Your task to perform on an android device: Go to settings Image 0: 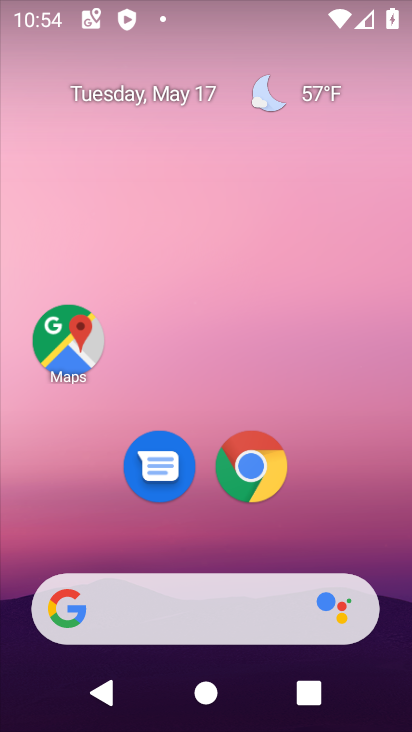
Step 0: drag from (203, 562) to (194, 27)
Your task to perform on an android device: Go to settings Image 1: 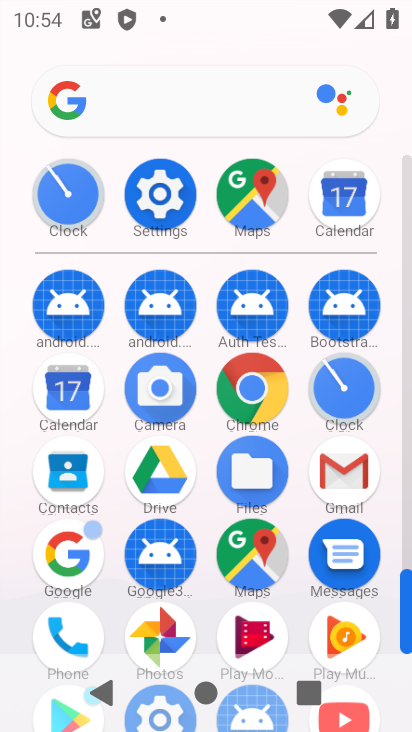
Step 1: click (157, 190)
Your task to perform on an android device: Go to settings Image 2: 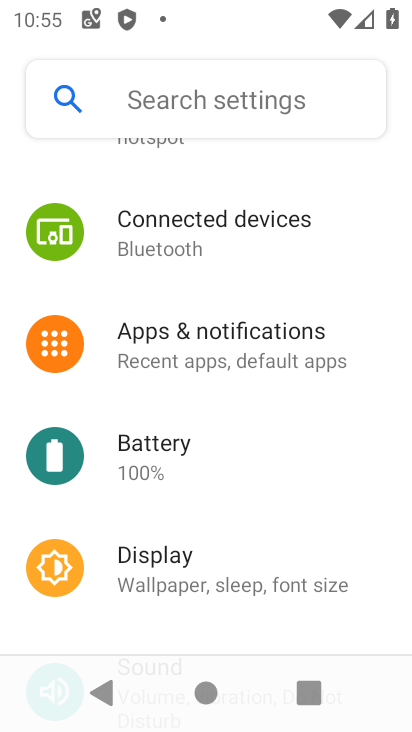
Step 2: task complete